Your task to perform on an android device: find which apps use the phone's location Image 0: 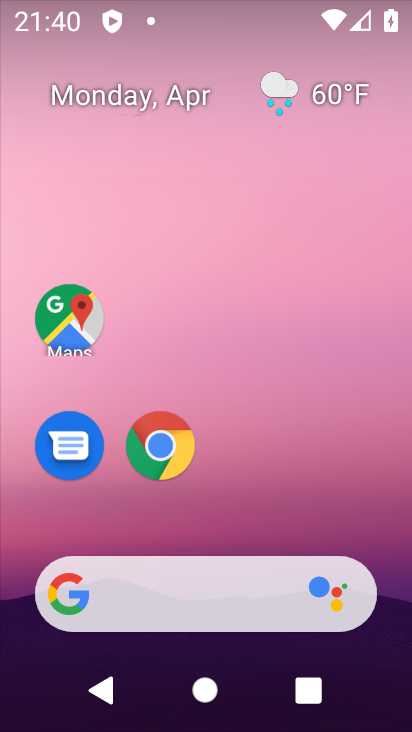
Step 0: drag from (253, 484) to (290, 78)
Your task to perform on an android device: find which apps use the phone's location Image 1: 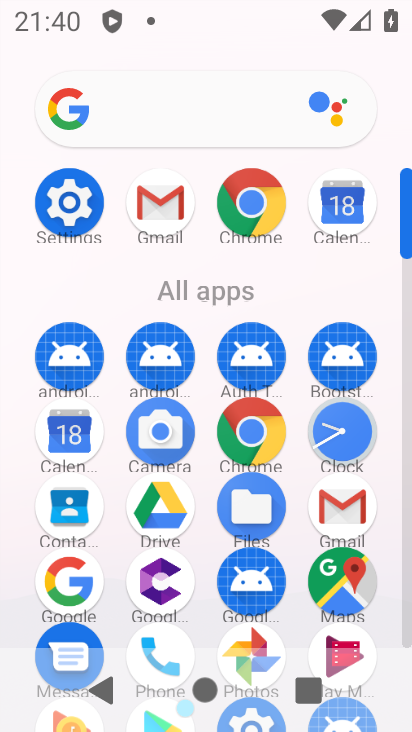
Step 1: click (74, 196)
Your task to perform on an android device: find which apps use the phone's location Image 2: 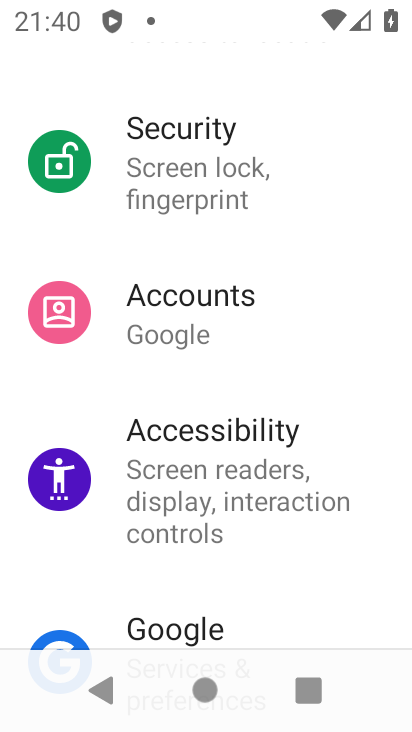
Step 2: drag from (230, 575) to (246, 217)
Your task to perform on an android device: find which apps use the phone's location Image 3: 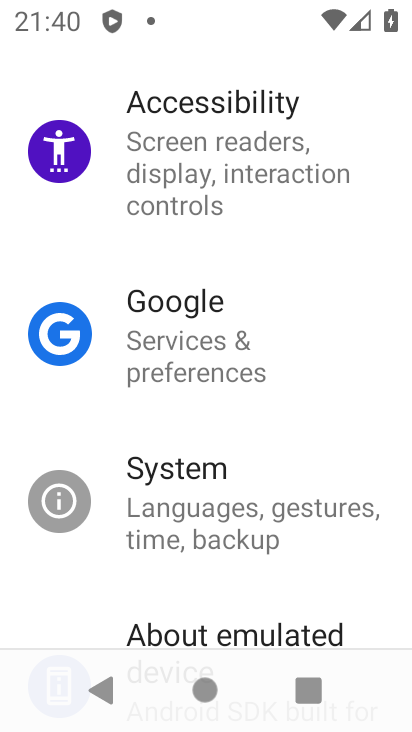
Step 3: drag from (246, 236) to (275, 602)
Your task to perform on an android device: find which apps use the phone's location Image 4: 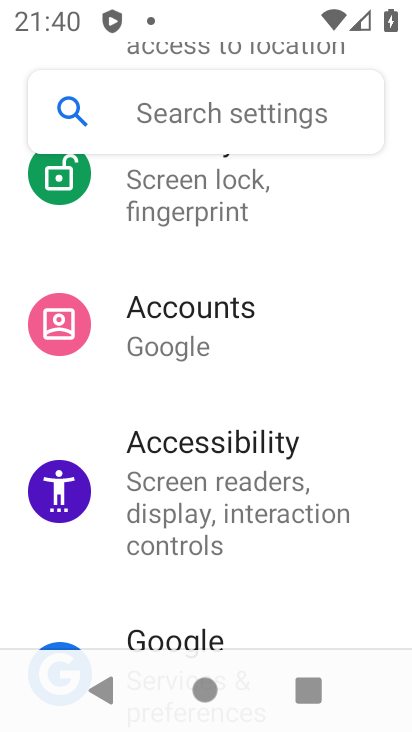
Step 4: drag from (276, 257) to (316, 551)
Your task to perform on an android device: find which apps use the phone's location Image 5: 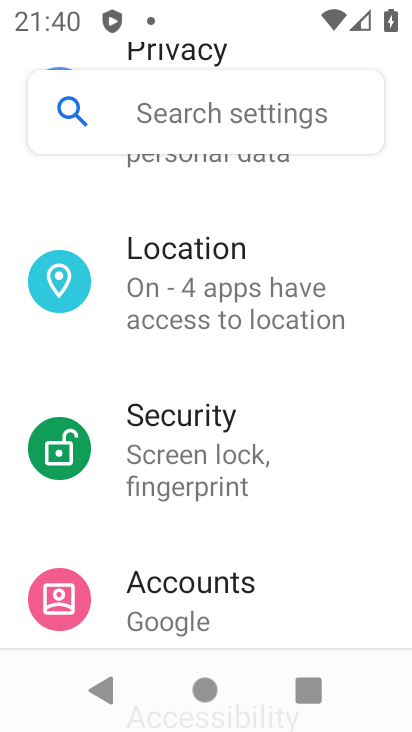
Step 5: click (265, 300)
Your task to perform on an android device: find which apps use the phone's location Image 6: 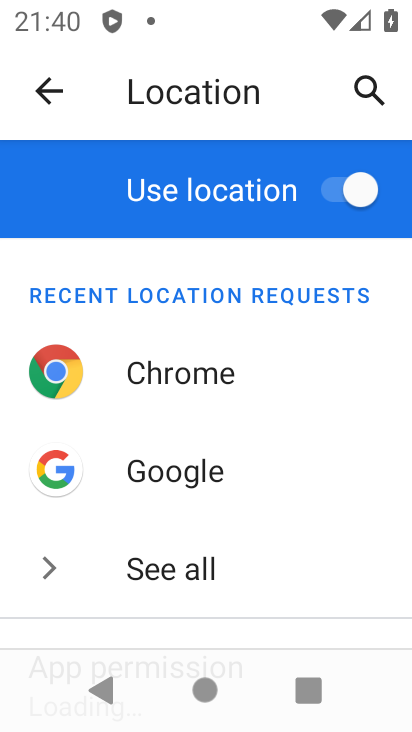
Step 6: drag from (297, 525) to (339, 145)
Your task to perform on an android device: find which apps use the phone's location Image 7: 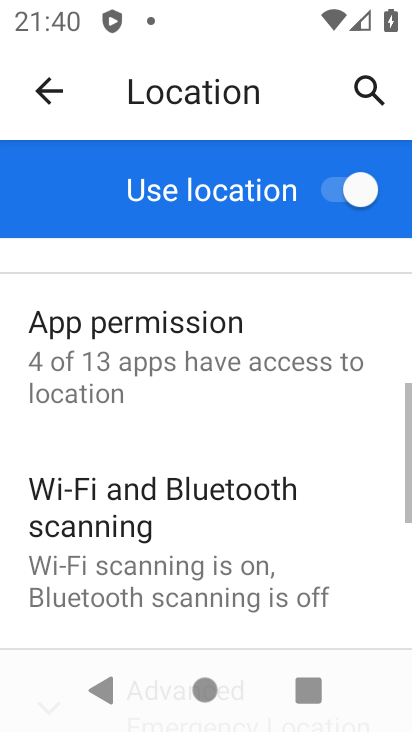
Step 7: click (199, 321)
Your task to perform on an android device: find which apps use the phone's location Image 8: 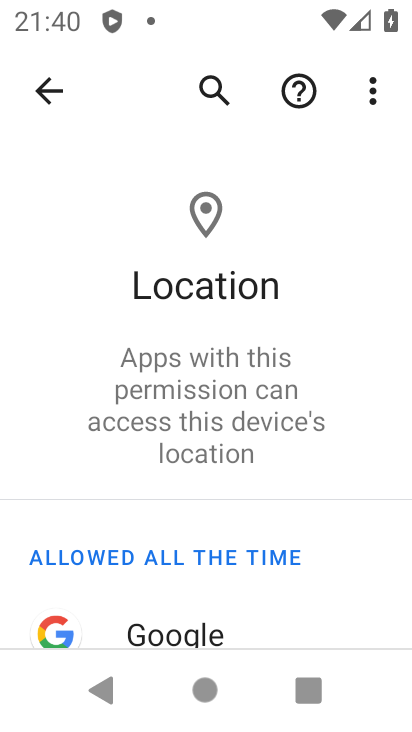
Step 8: task complete